Your task to perform on an android device: change alarm snooze length Image 0: 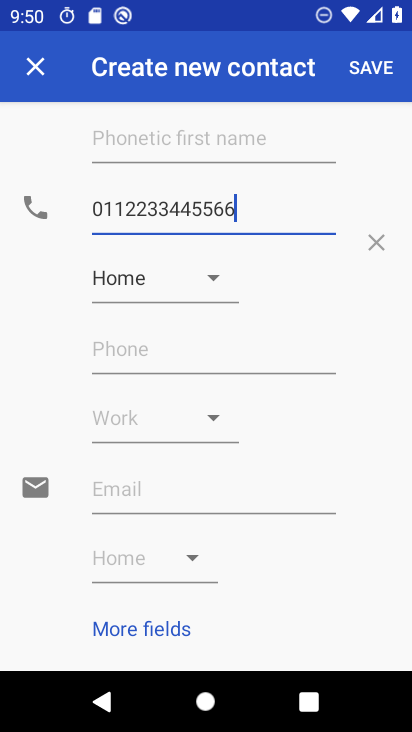
Step 0: click (381, 68)
Your task to perform on an android device: change alarm snooze length Image 1: 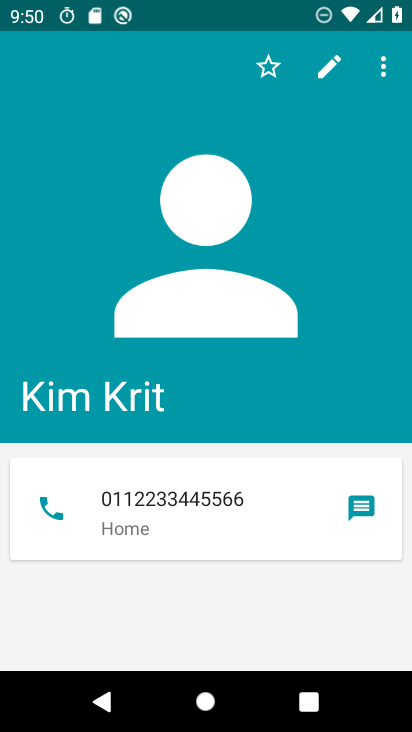
Step 1: press home button
Your task to perform on an android device: change alarm snooze length Image 2: 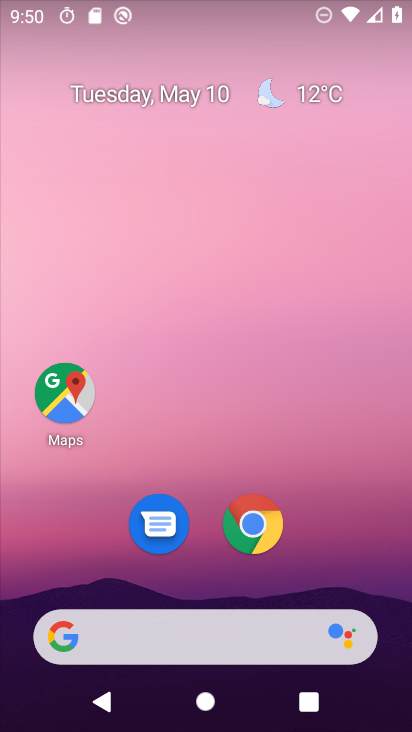
Step 2: drag from (310, 516) to (281, 97)
Your task to perform on an android device: change alarm snooze length Image 3: 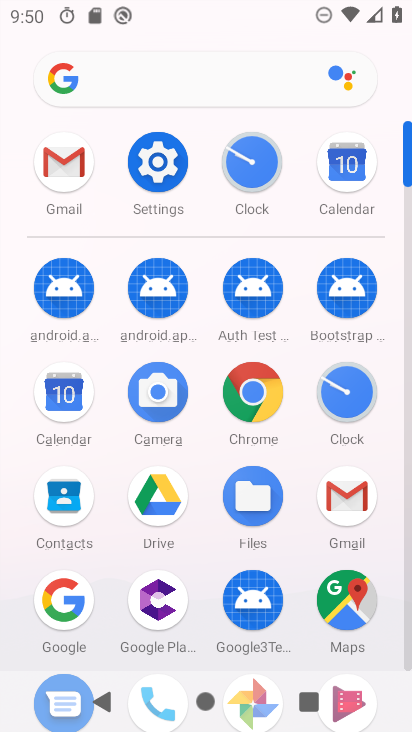
Step 3: click (263, 153)
Your task to perform on an android device: change alarm snooze length Image 4: 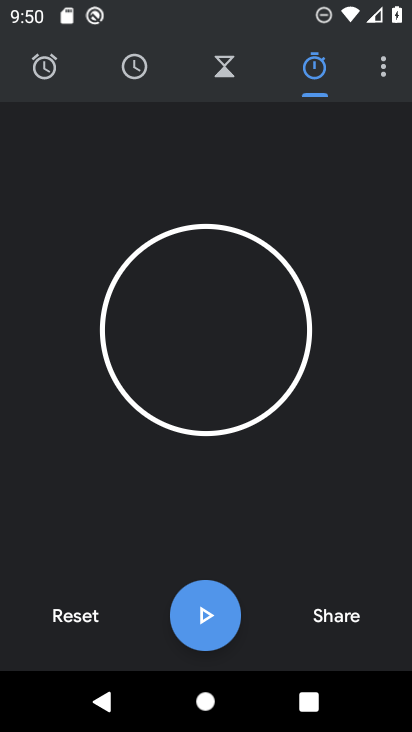
Step 4: click (383, 66)
Your task to perform on an android device: change alarm snooze length Image 5: 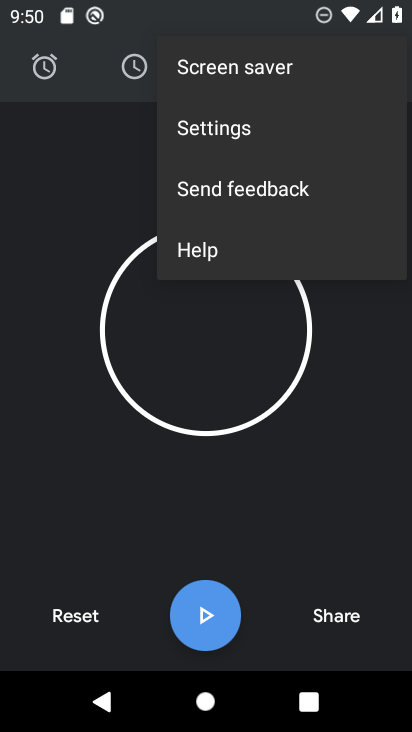
Step 5: click (294, 128)
Your task to perform on an android device: change alarm snooze length Image 6: 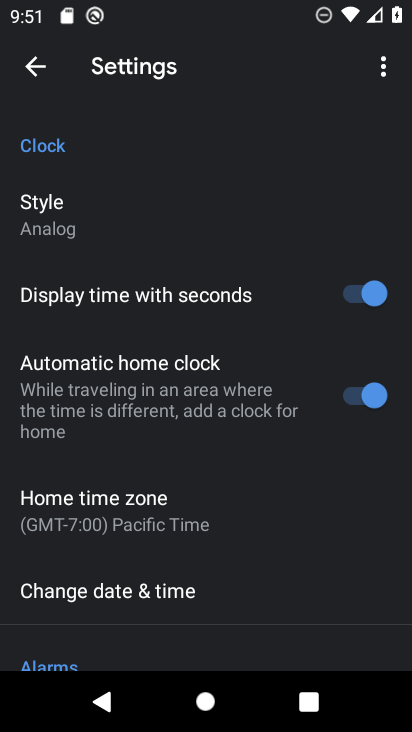
Step 6: drag from (246, 546) to (227, 200)
Your task to perform on an android device: change alarm snooze length Image 7: 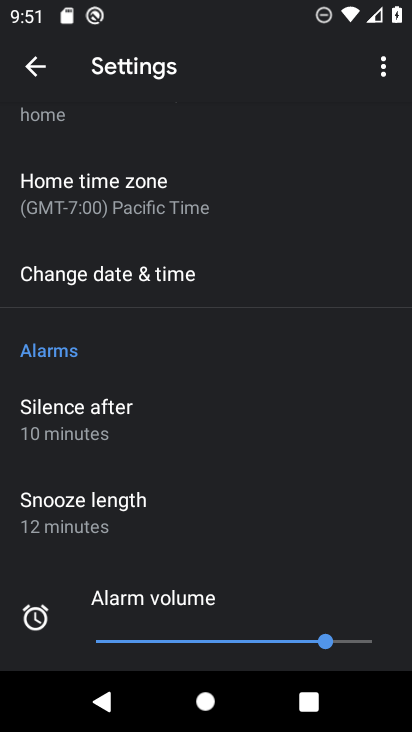
Step 7: click (148, 515)
Your task to perform on an android device: change alarm snooze length Image 8: 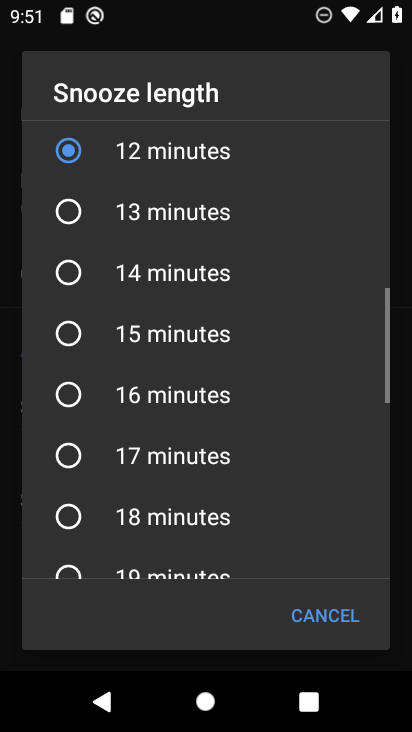
Step 8: drag from (171, 288) to (173, 448)
Your task to perform on an android device: change alarm snooze length Image 9: 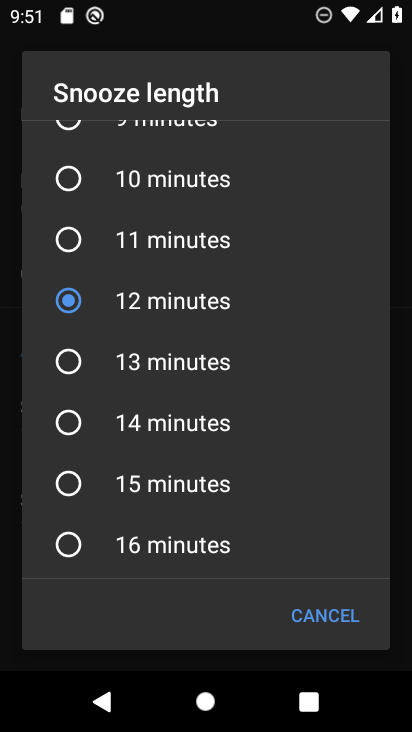
Step 9: click (74, 169)
Your task to perform on an android device: change alarm snooze length Image 10: 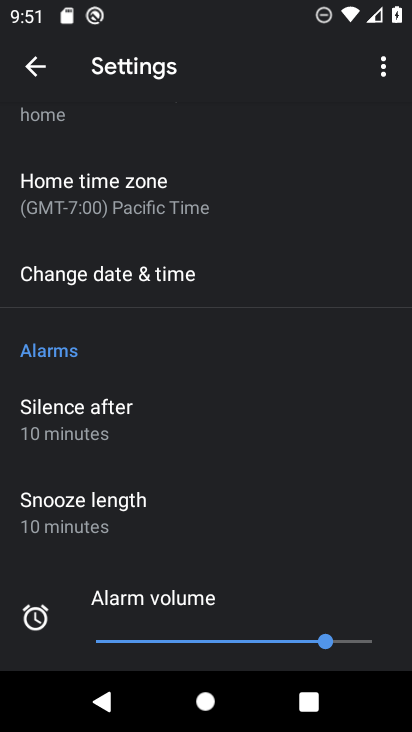
Step 10: task complete